Your task to perform on an android device: Open battery settings Image 0: 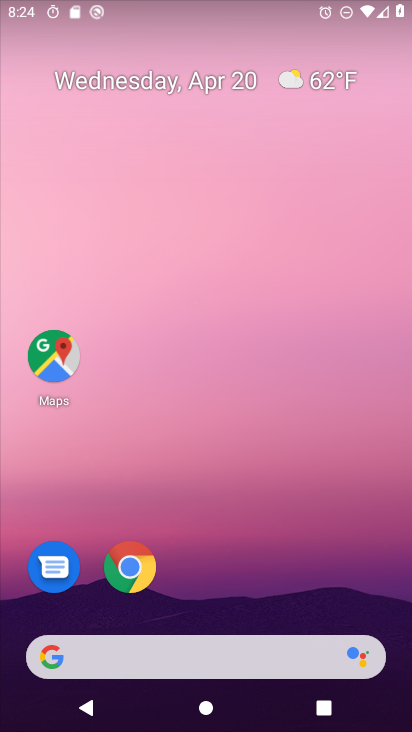
Step 0: drag from (356, 532) to (275, 18)
Your task to perform on an android device: Open battery settings Image 1: 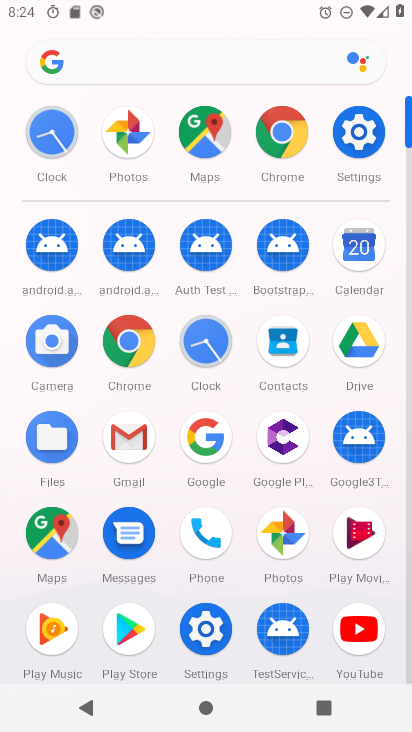
Step 1: click (354, 121)
Your task to perform on an android device: Open battery settings Image 2: 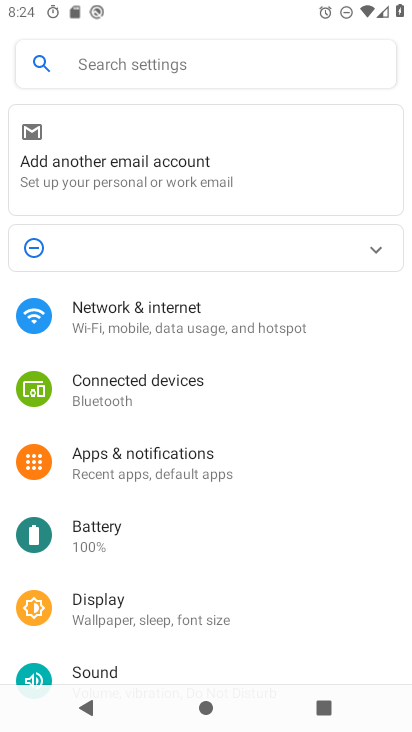
Step 2: click (89, 528)
Your task to perform on an android device: Open battery settings Image 3: 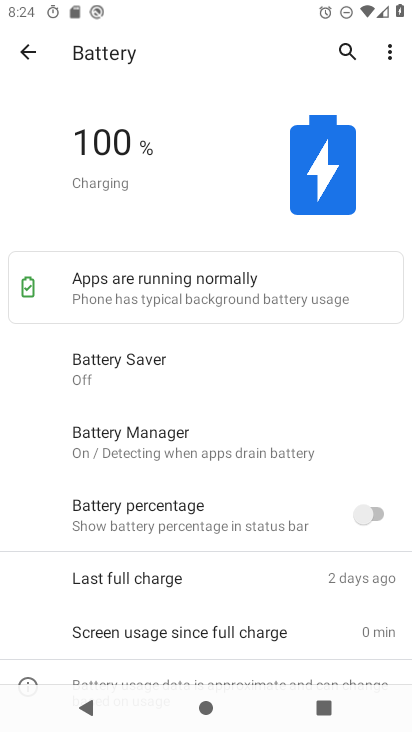
Step 3: task complete